Your task to perform on an android device: Show me the alarms in the clock app Image 0: 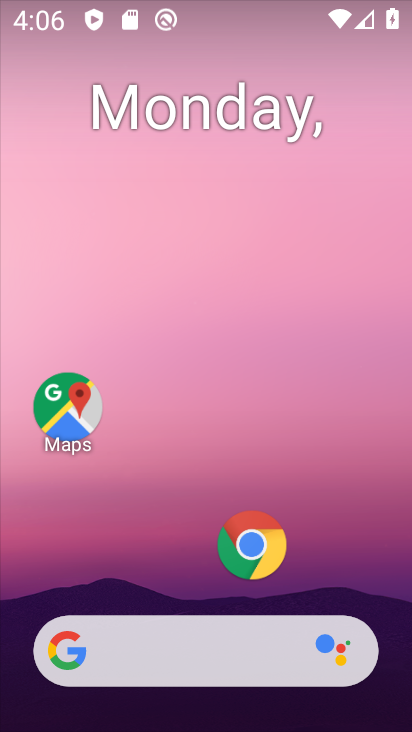
Step 0: drag from (211, 588) to (367, 68)
Your task to perform on an android device: Show me the alarms in the clock app Image 1: 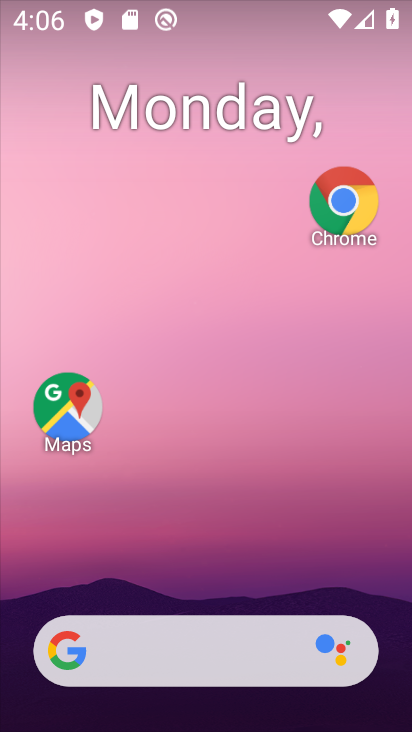
Step 1: drag from (235, 578) to (326, 19)
Your task to perform on an android device: Show me the alarms in the clock app Image 2: 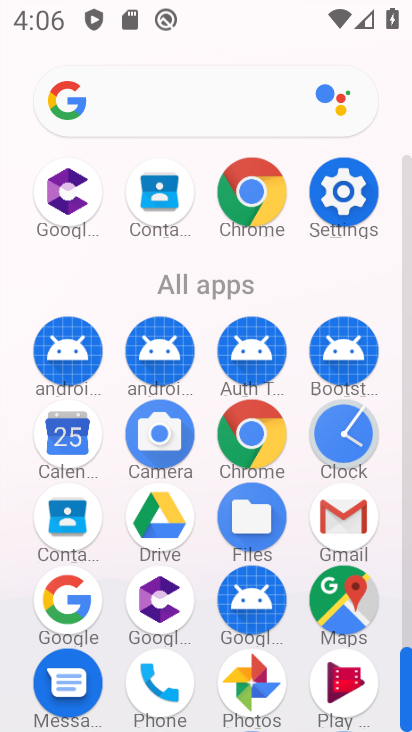
Step 2: click (339, 432)
Your task to perform on an android device: Show me the alarms in the clock app Image 3: 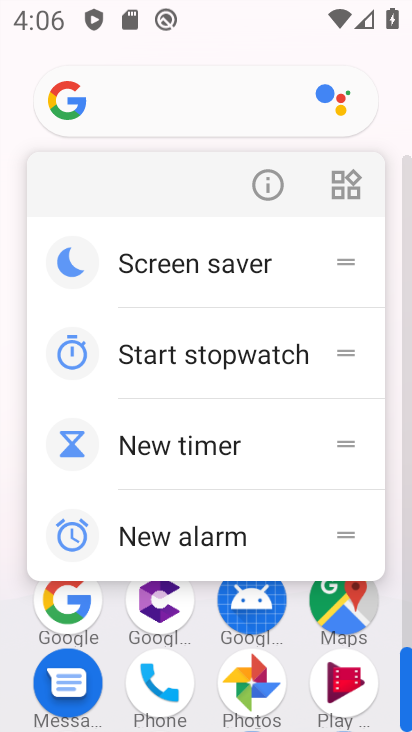
Step 3: click (394, 467)
Your task to perform on an android device: Show me the alarms in the clock app Image 4: 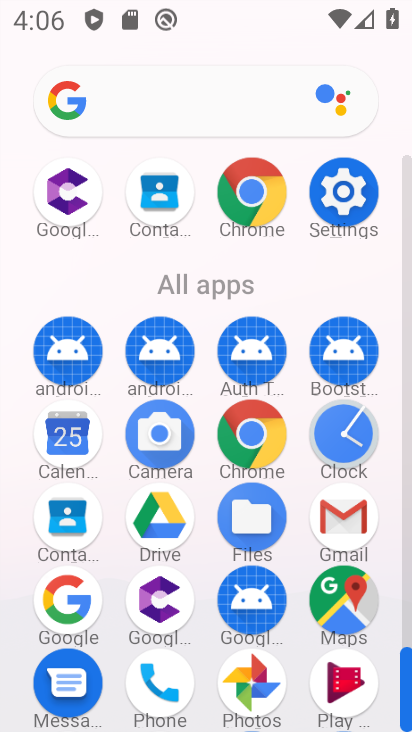
Step 4: click (331, 441)
Your task to perform on an android device: Show me the alarms in the clock app Image 5: 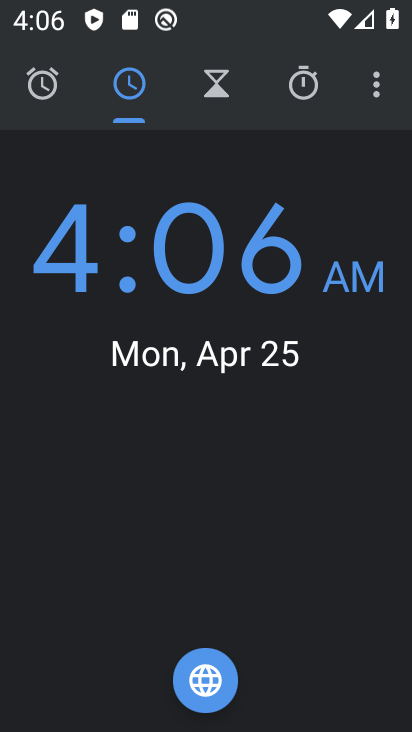
Step 5: click (43, 84)
Your task to perform on an android device: Show me the alarms in the clock app Image 6: 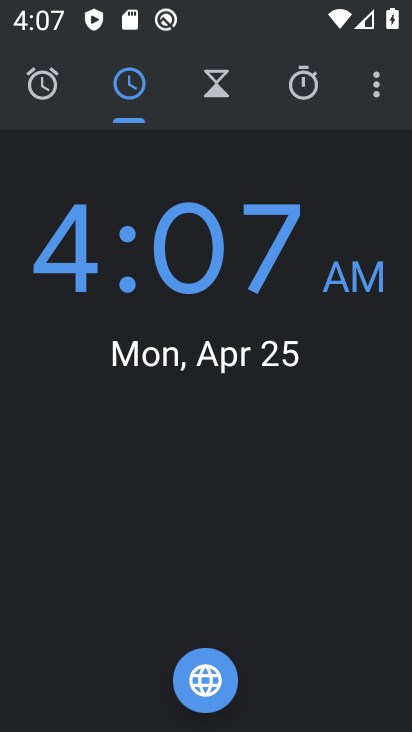
Step 6: task complete